Your task to perform on an android device: turn vacation reply on in the gmail app Image 0: 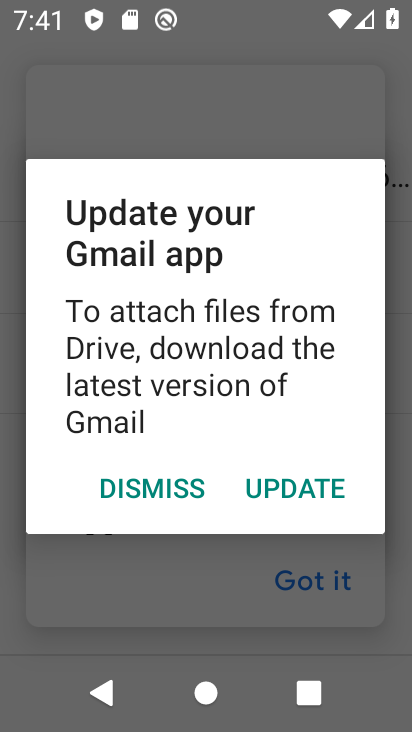
Step 0: press home button
Your task to perform on an android device: turn vacation reply on in the gmail app Image 1: 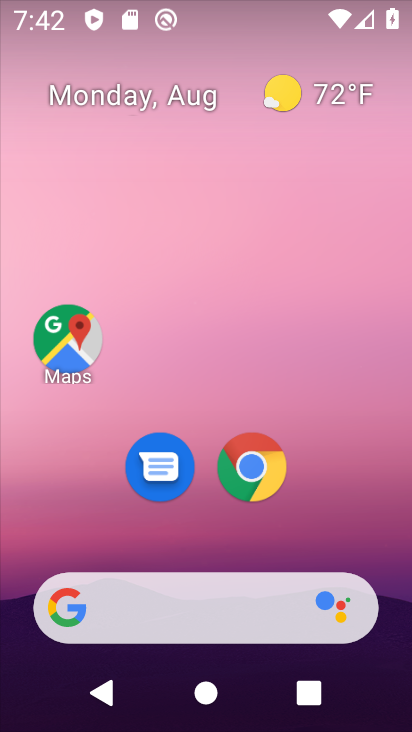
Step 1: drag from (348, 510) to (366, 96)
Your task to perform on an android device: turn vacation reply on in the gmail app Image 2: 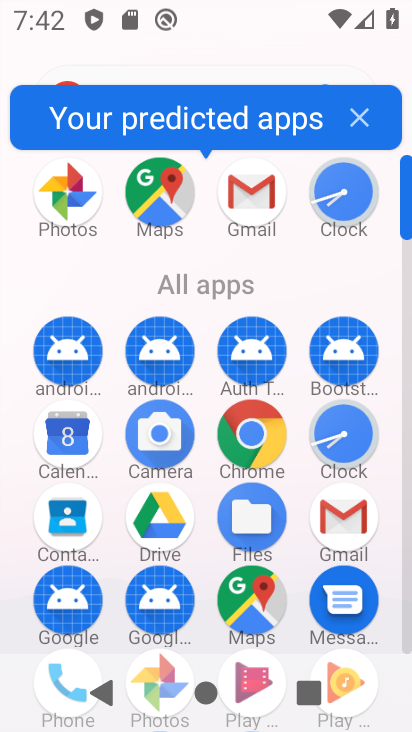
Step 2: click (354, 505)
Your task to perform on an android device: turn vacation reply on in the gmail app Image 3: 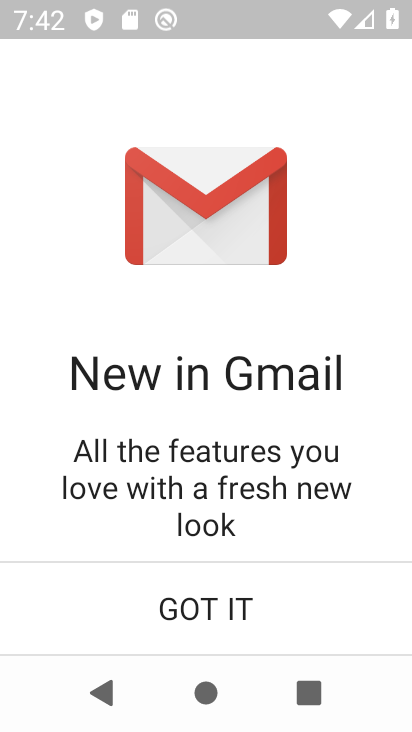
Step 3: click (254, 597)
Your task to perform on an android device: turn vacation reply on in the gmail app Image 4: 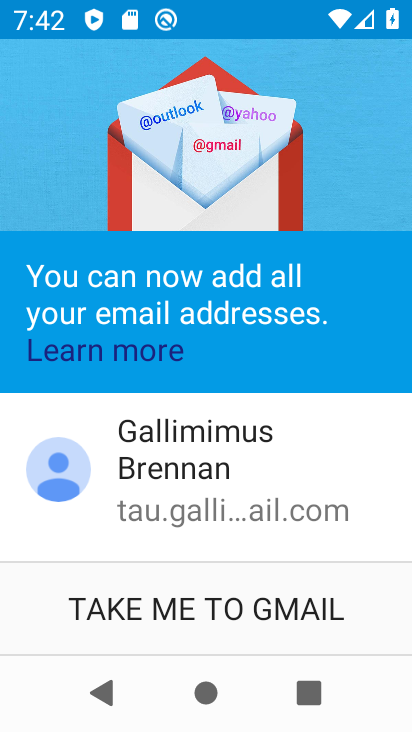
Step 4: click (255, 614)
Your task to perform on an android device: turn vacation reply on in the gmail app Image 5: 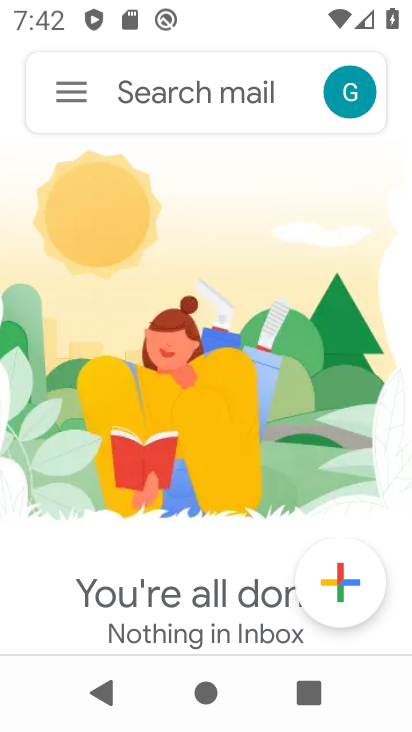
Step 5: click (74, 88)
Your task to perform on an android device: turn vacation reply on in the gmail app Image 6: 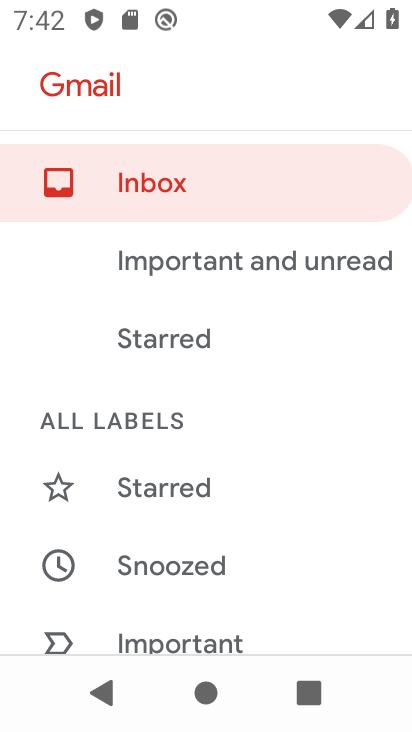
Step 6: drag from (320, 453) to (329, 362)
Your task to perform on an android device: turn vacation reply on in the gmail app Image 7: 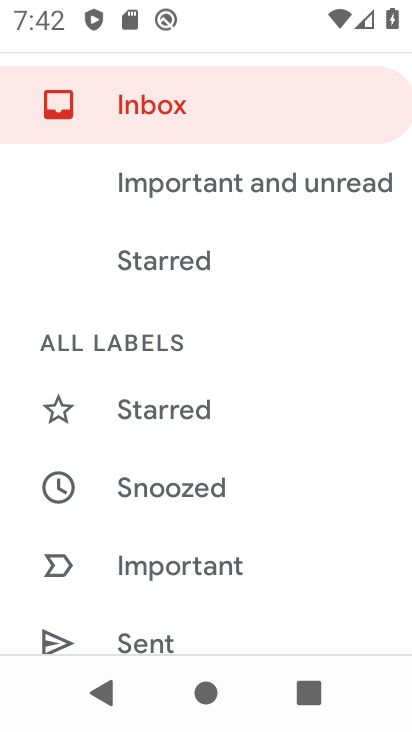
Step 7: drag from (329, 511) to (336, 397)
Your task to perform on an android device: turn vacation reply on in the gmail app Image 8: 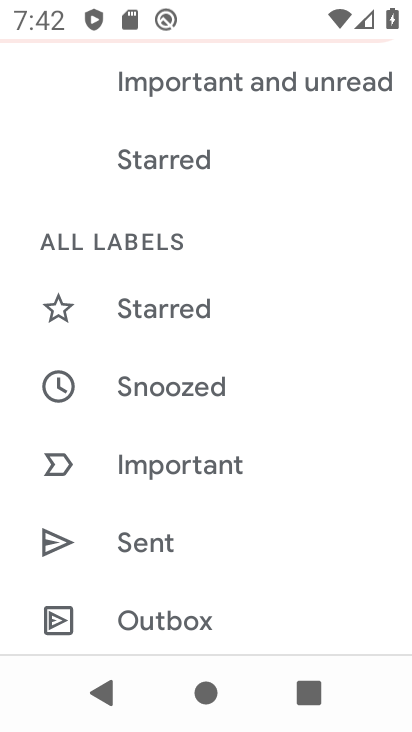
Step 8: drag from (335, 519) to (333, 387)
Your task to perform on an android device: turn vacation reply on in the gmail app Image 9: 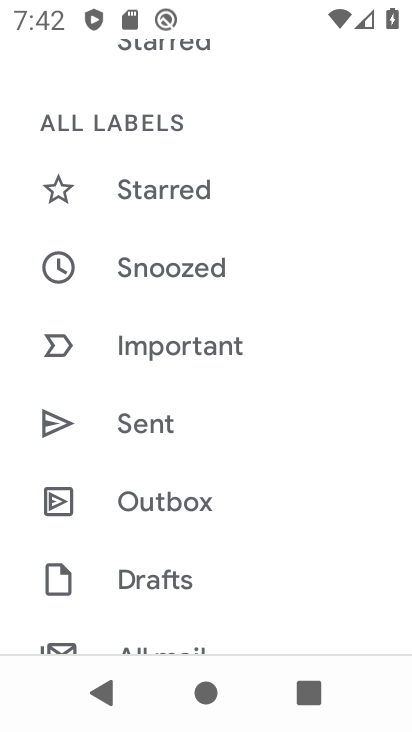
Step 9: drag from (325, 518) to (336, 385)
Your task to perform on an android device: turn vacation reply on in the gmail app Image 10: 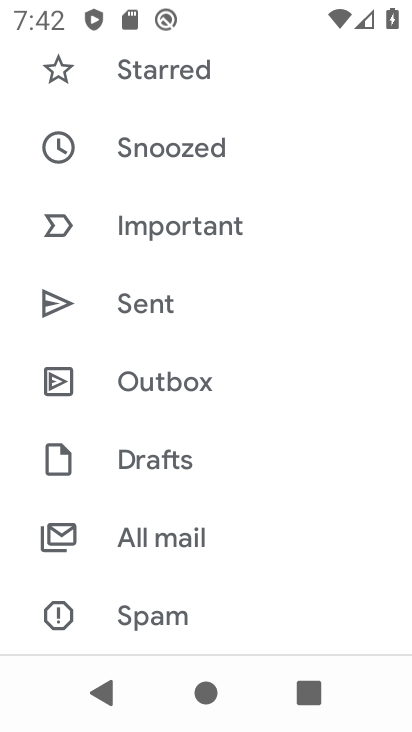
Step 10: drag from (325, 526) to (333, 415)
Your task to perform on an android device: turn vacation reply on in the gmail app Image 11: 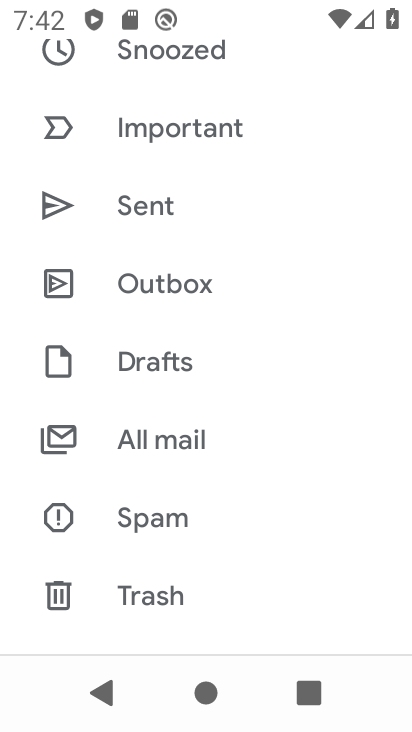
Step 11: drag from (323, 566) to (319, 378)
Your task to perform on an android device: turn vacation reply on in the gmail app Image 12: 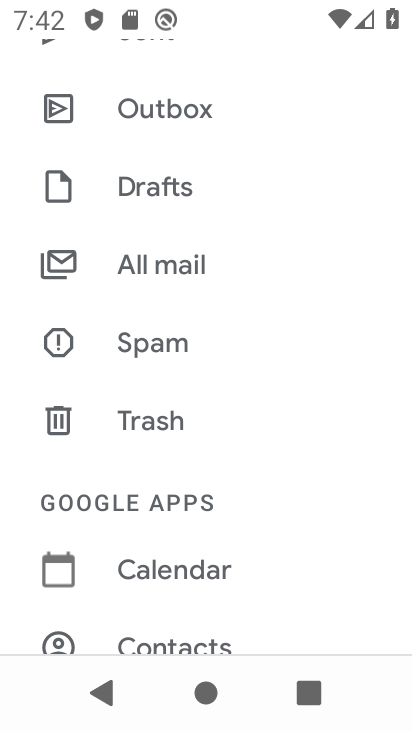
Step 12: drag from (294, 556) to (301, 369)
Your task to perform on an android device: turn vacation reply on in the gmail app Image 13: 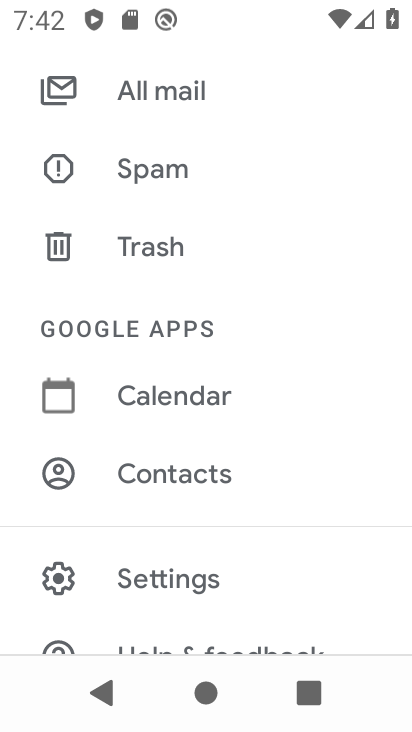
Step 13: drag from (290, 539) to (293, 368)
Your task to perform on an android device: turn vacation reply on in the gmail app Image 14: 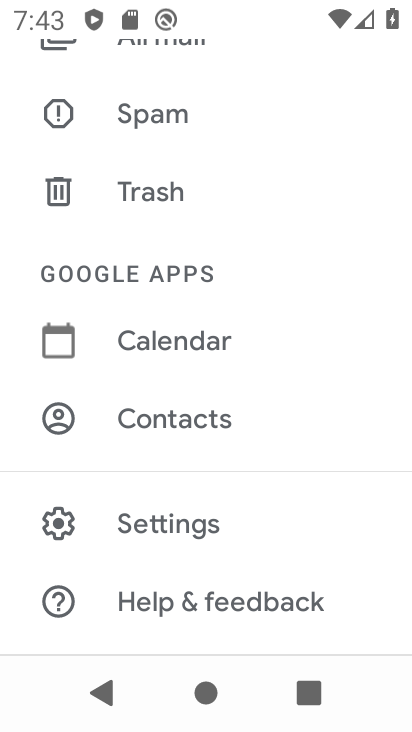
Step 14: click (267, 523)
Your task to perform on an android device: turn vacation reply on in the gmail app Image 15: 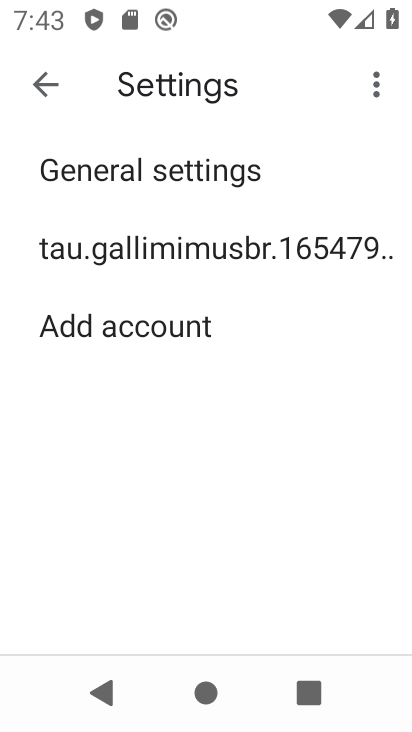
Step 15: click (290, 242)
Your task to perform on an android device: turn vacation reply on in the gmail app Image 16: 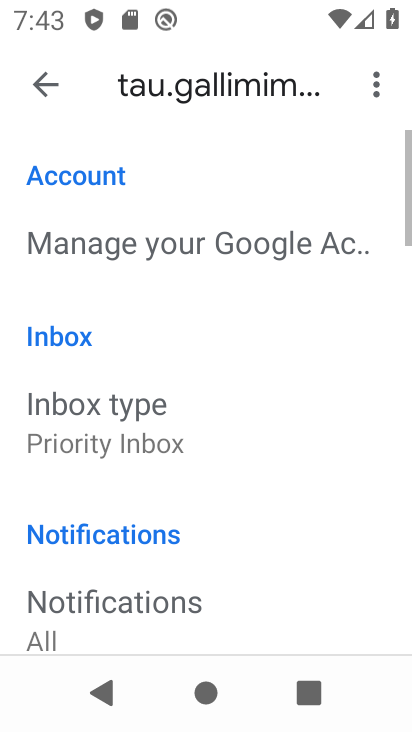
Step 16: task complete